Your task to perform on an android device: open chrome and create a bookmark for the current page Image 0: 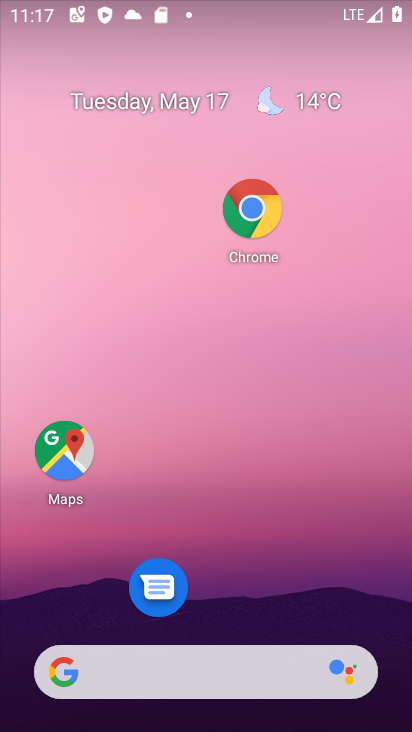
Step 0: click (255, 207)
Your task to perform on an android device: open chrome and create a bookmark for the current page Image 1: 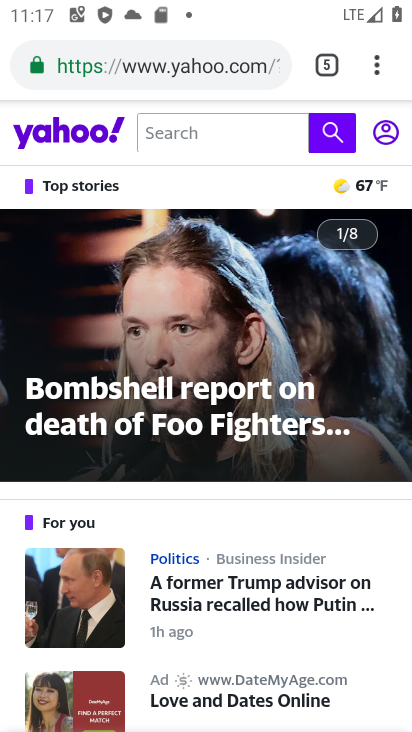
Step 1: click (374, 59)
Your task to perform on an android device: open chrome and create a bookmark for the current page Image 2: 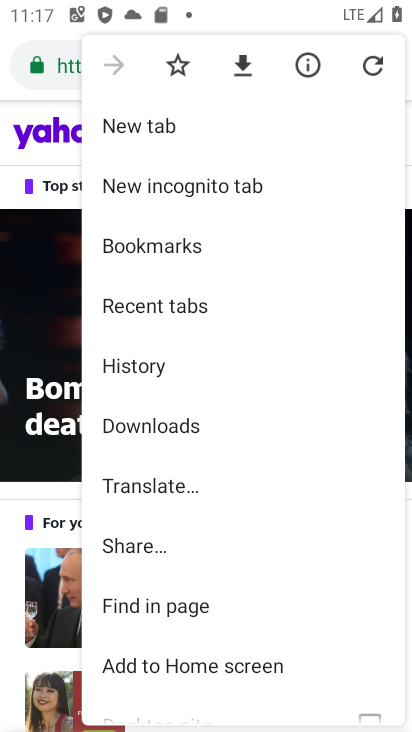
Step 2: click (177, 63)
Your task to perform on an android device: open chrome and create a bookmark for the current page Image 3: 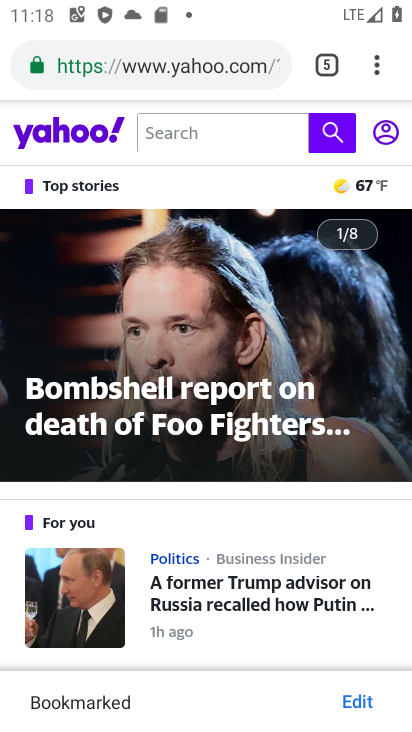
Step 3: task complete